Your task to perform on an android device: see tabs open on other devices in the chrome app Image 0: 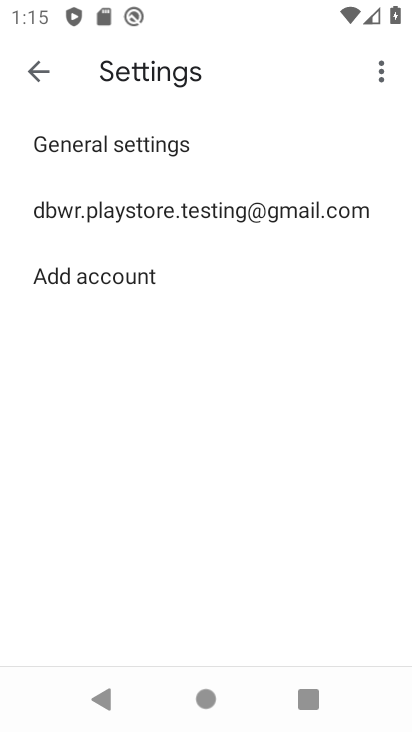
Step 0: press home button
Your task to perform on an android device: see tabs open on other devices in the chrome app Image 1: 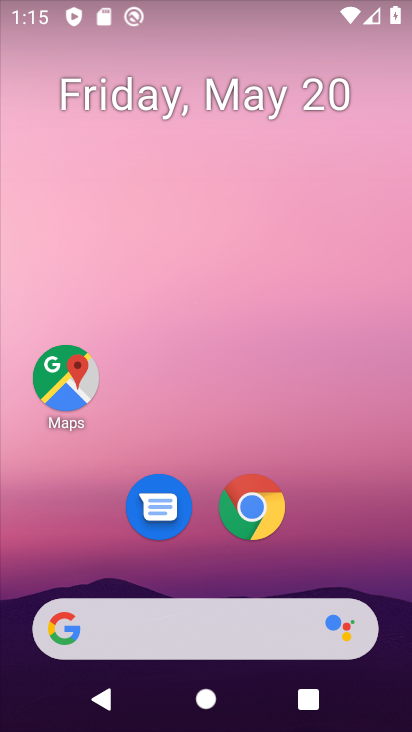
Step 1: click (275, 507)
Your task to perform on an android device: see tabs open on other devices in the chrome app Image 2: 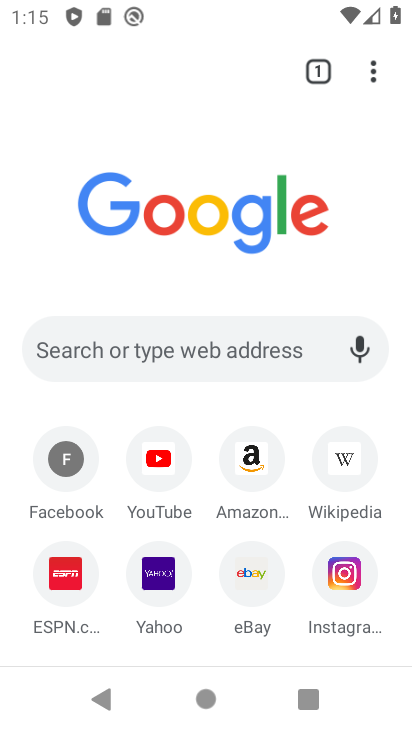
Step 2: click (387, 77)
Your task to perform on an android device: see tabs open on other devices in the chrome app Image 3: 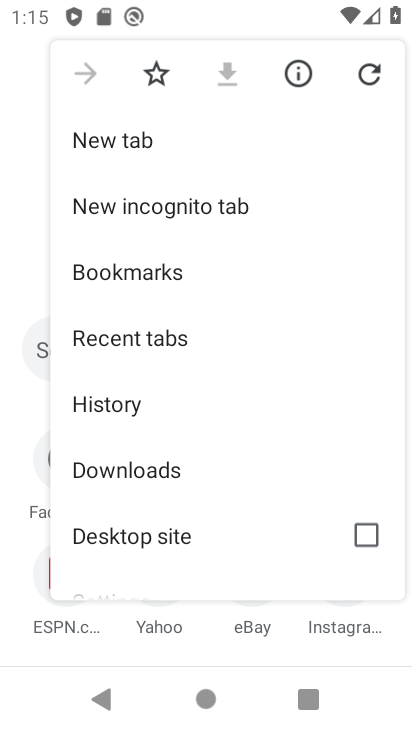
Step 3: click (279, 332)
Your task to perform on an android device: see tabs open on other devices in the chrome app Image 4: 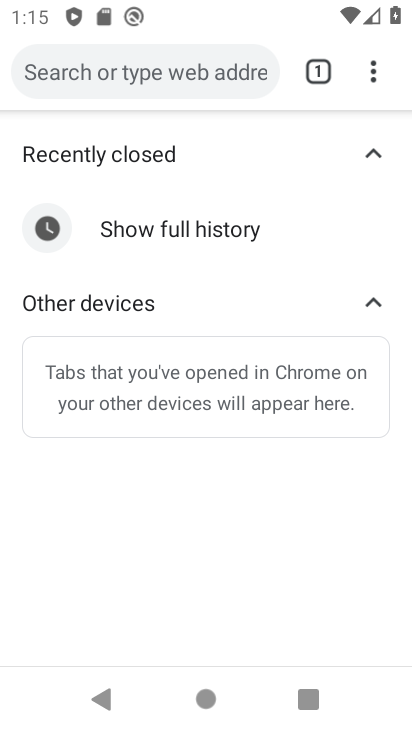
Step 4: task complete